Your task to perform on an android device: What is the recent news? Image 0: 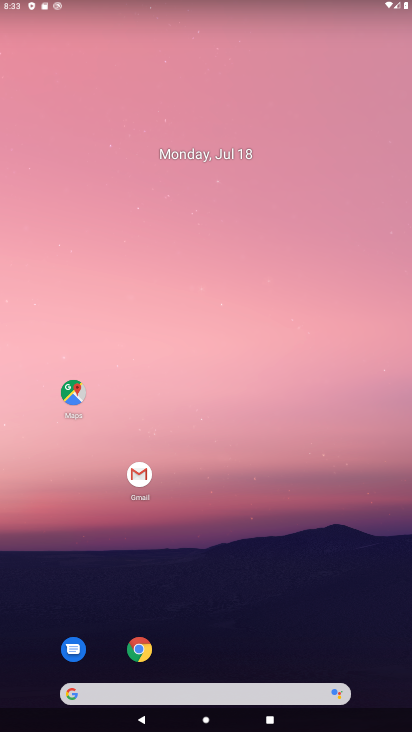
Step 0: drag from (297, 731) to (267, 512)
Your task to perform on an android device: What is the recent news? Image 1: 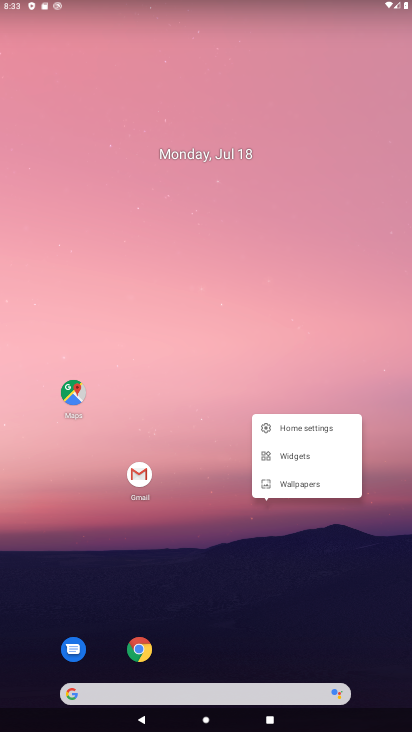
Step 1: click (249, 698)
Your task to perform on an android device: What is the recent news? Image 2: 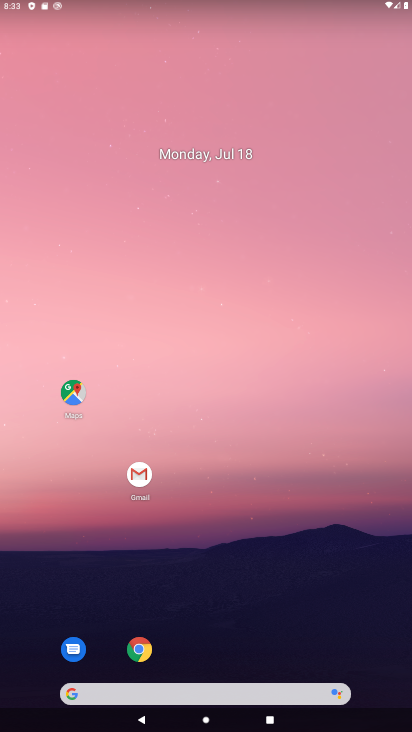
Step 2: click (254, 686)
Your task to perform on an android device: What is the recent news? Image 3: 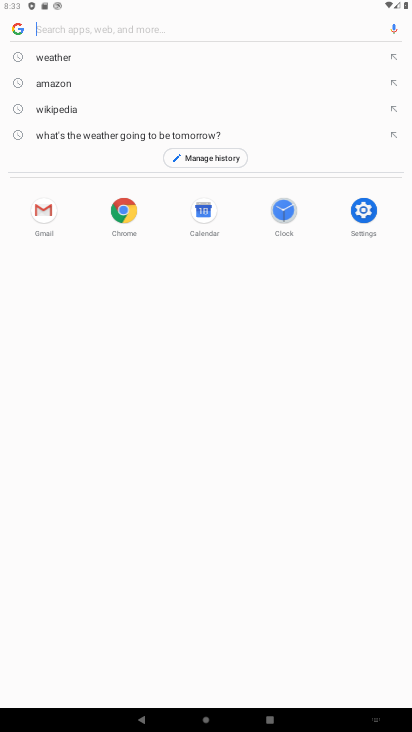
Step 3: type "What is the recent news?"
Your task to perform on an android device: What is the recent news? Image 4: 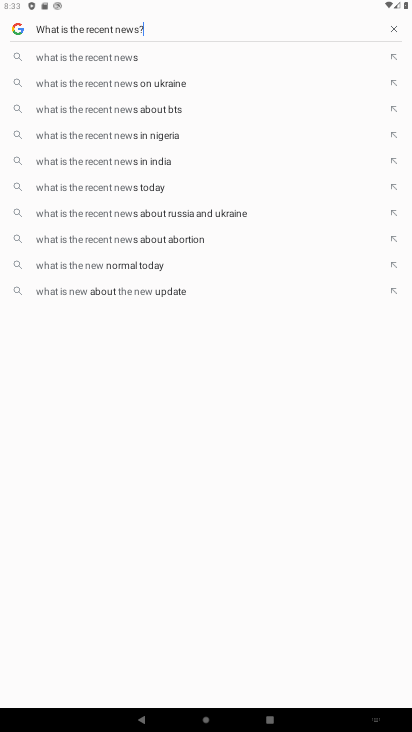
Step 4: press enter
Your task to perform on an android device: What is the recent news? Image 5: 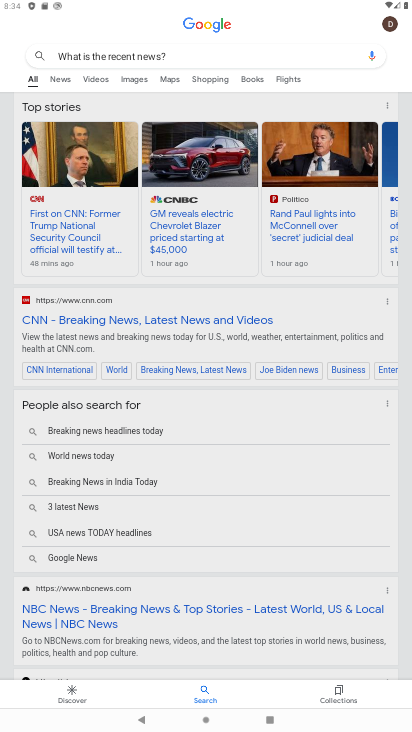
Step 5: task complete